Your task to perform on an android device: toggle javascript in the chrome app Image 0: 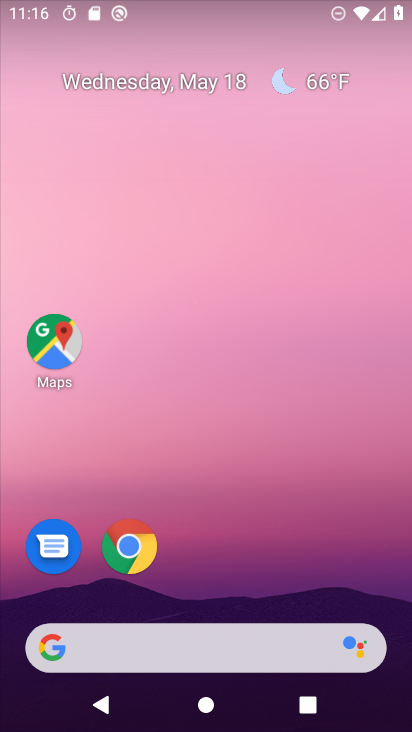
Step 0: click (129, 551)
Your task to perform on an android device: toggle javascript in the chrome app Image 1: 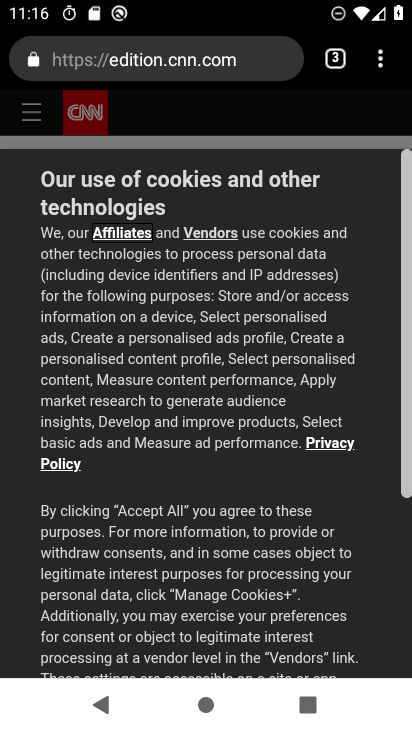
Step 1: click (378, 52)
Your task to perform on an android device: toggle javascript in the chrome app Image 2: 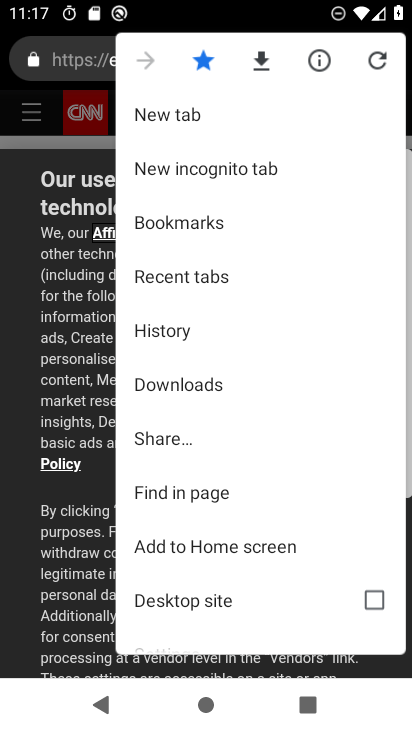
Step 2: drag from (193, 581) to (252, 17)
Your task to perform on an android device: toggle javascript in the chrome app Image 3: 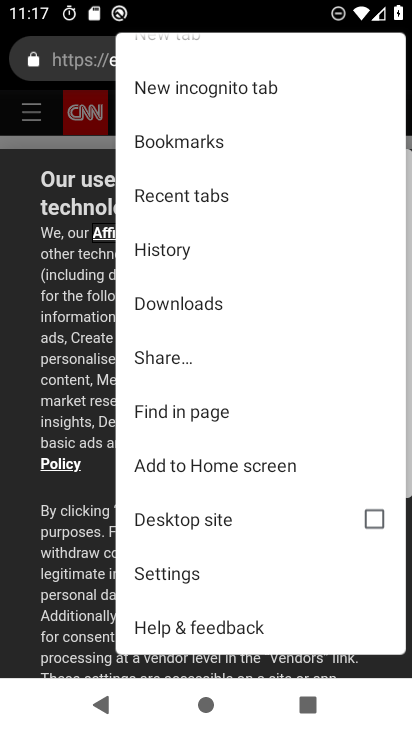
Step 3: click (190, 570)
Your task to perform on an android device: toggle javascript in the chrome app Image 4: 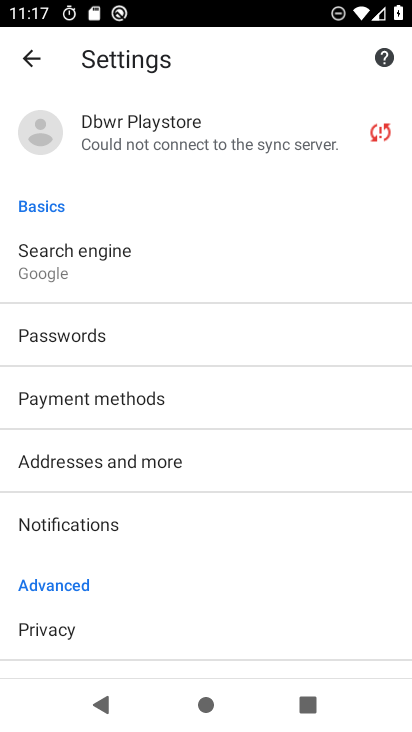
Step 4: drag from (119, 606) to (223, 271)
Your task to perform on an android device: toggle javascript in the chrome app Image 5: 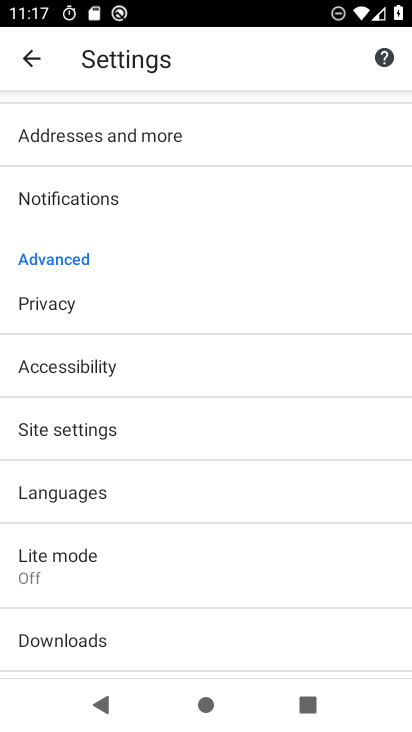
Step 5: click (68, 443)
Your task to perform on an android device: toggle javascript in the chrome app Image 6: 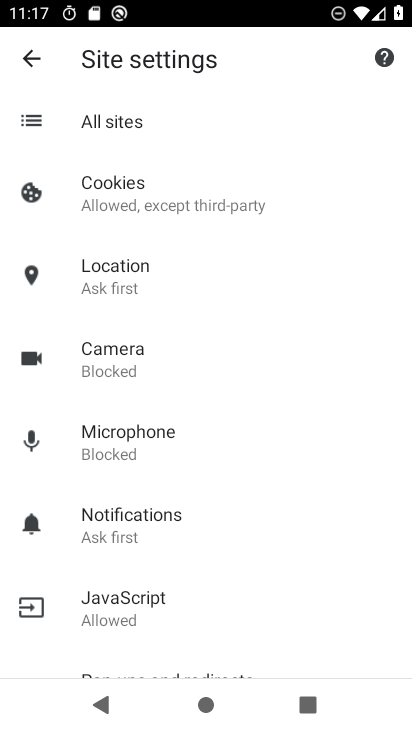
Step 6: click (119, 603)
Your task to perform on an android device: toggle javascript in the chrome app Image 7: 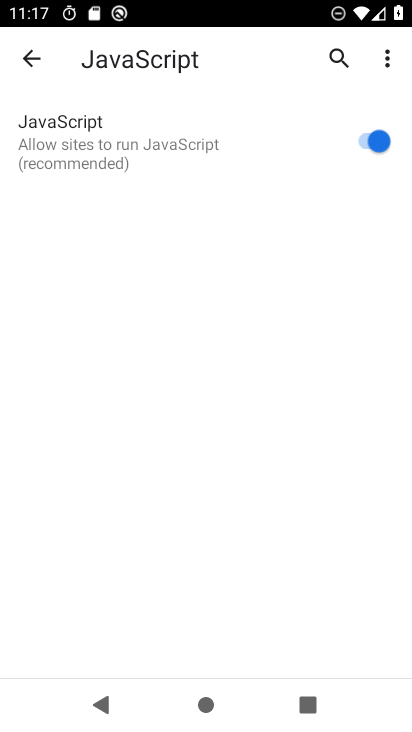
Step 7: task complete